Your task to perform on an android device: Go to display settings Image 0: 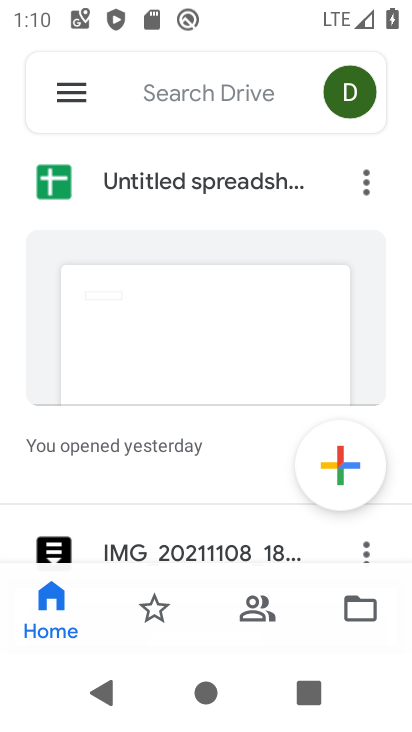
Step 0: press home button
Your task to perform on an android device: Go to display settings Image 1: 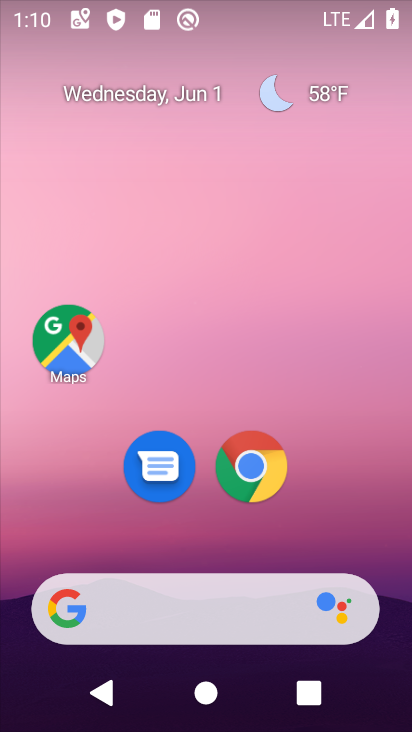
Step 1: drag from (372, 553) to (293, 222)
Your task to perform on an android device: Go to display settings Image 2: 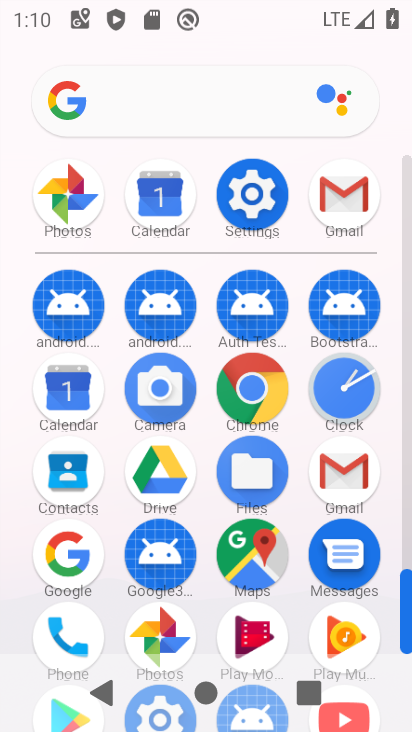
Step 2: click (252, 220)
Your task to perform on an android device: Go to display settings Image 3: 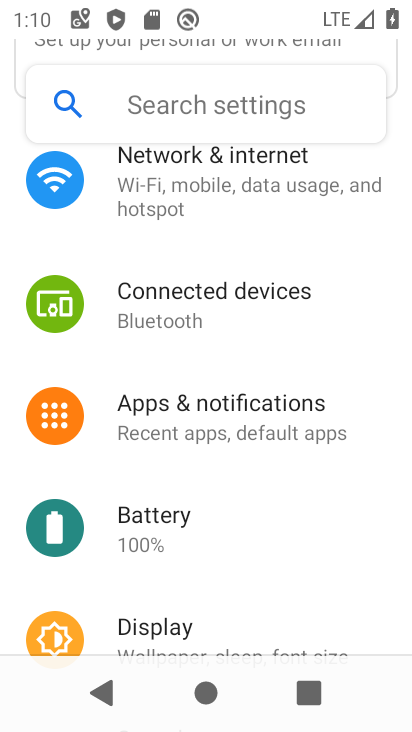
Step 3: click (235, 623)
Your task to perform on an android device: Go to display settings Image 4: 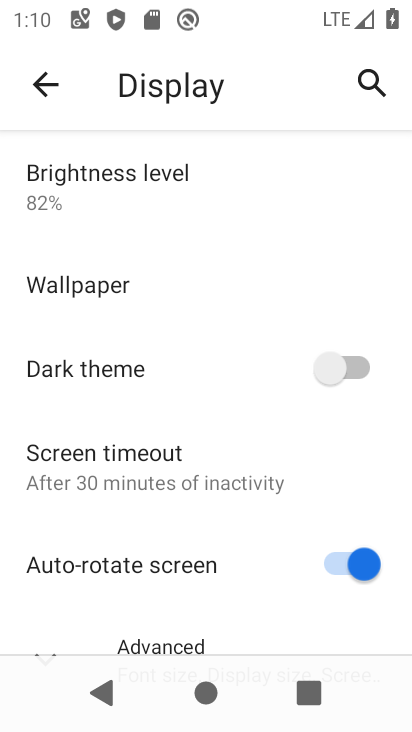
Step 4: drag from (235, 623) to (212, 297)
Your task to perform on an android device: Go to display settings Image 5: 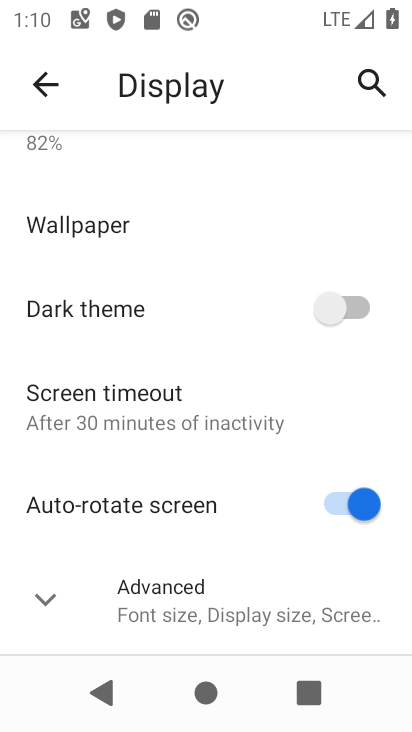
Step 5: click (239, 614)
Your task to perform on an android device: Go to display settings Image 6: 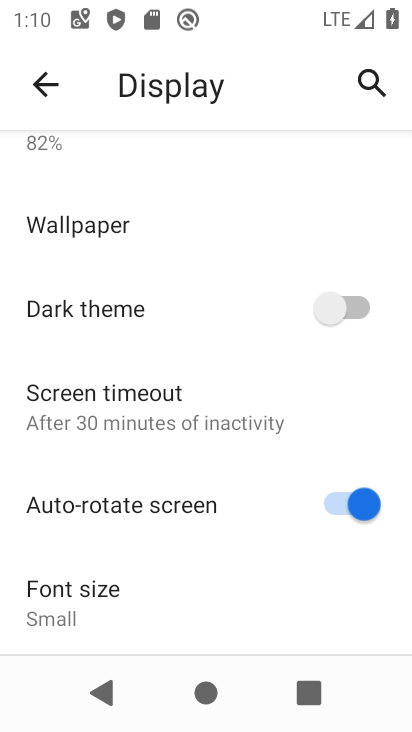
Step 6: task complete